Your task to perform on an android device: Go to Wikipedia Image 0: 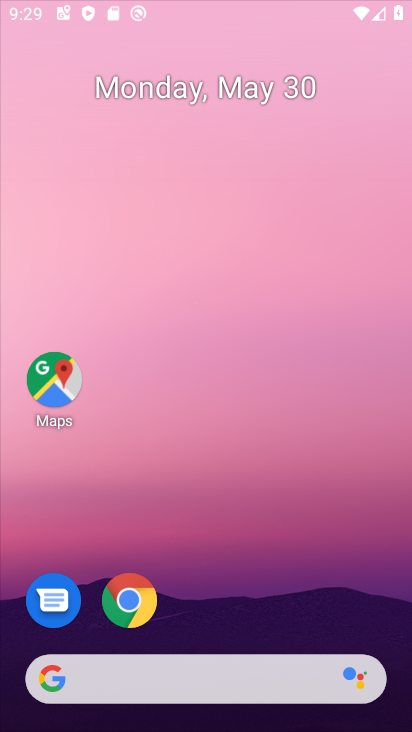
Step 0: press home button
Your task to perform on an android device: Go to Wikipedia Image 1: 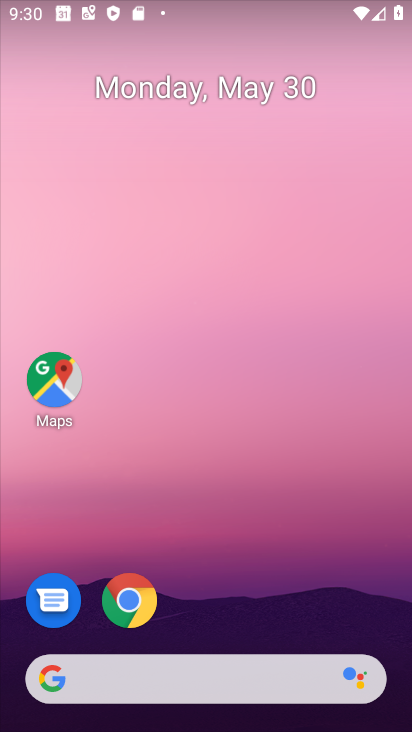
Step 1: click (48, 679)
Your task to perform on an android device: Go to Wikipedia Image 2: 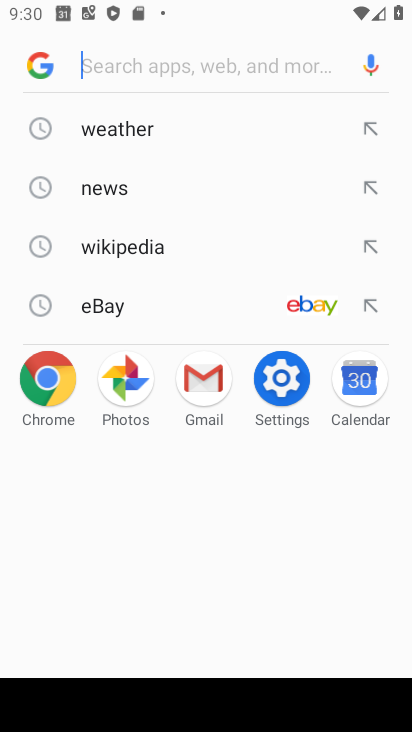
Step 2: click (119, 246)
Your task to perform on an android device: Go to Wikipedia Image 3: 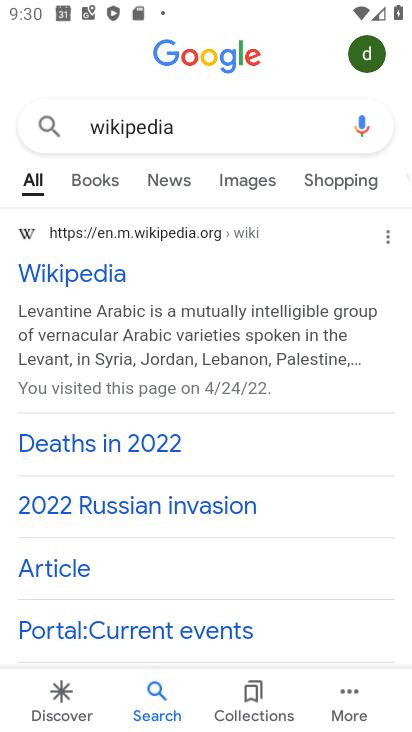
Step 3: click (69, 268)
Your task to perform on an android device: Go to Wikipedia Image 4: 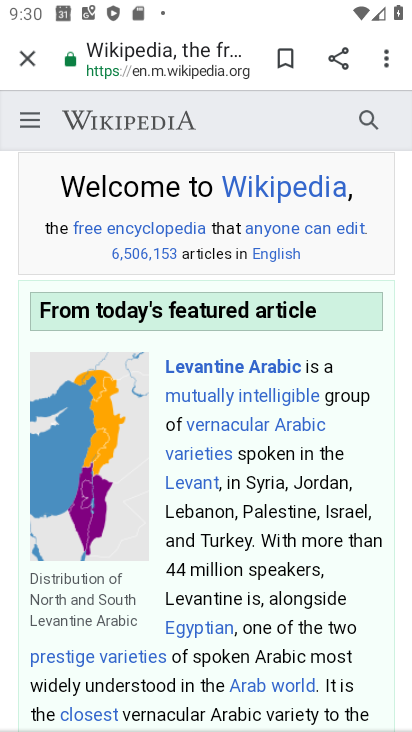
Step 4: task complete